Your task to perform on an android device: Open the stopwatch Image 0: 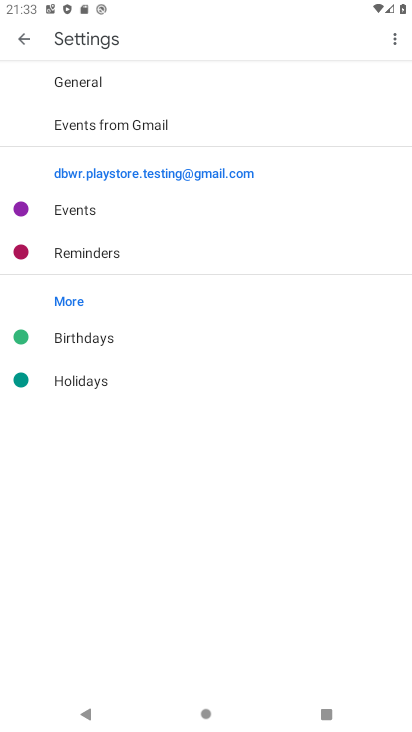
Step 0: press home button
Your task to perform on an android device: Open the stopwatch Image 1: 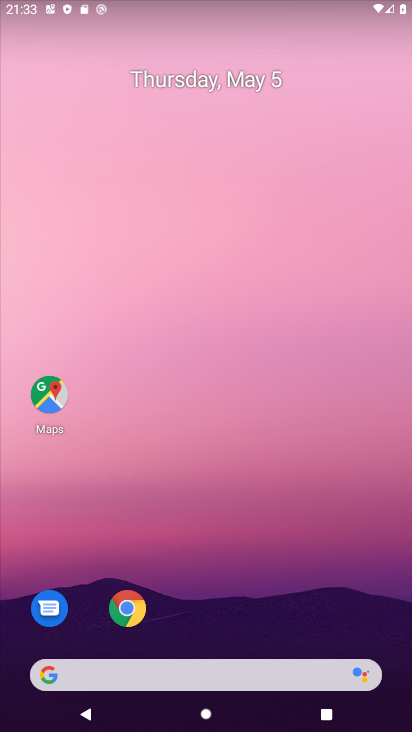
Step 1: drag from (308, 646) to (256, 7)
Your task to perform on an android device: Open the stopwatch Image 2: 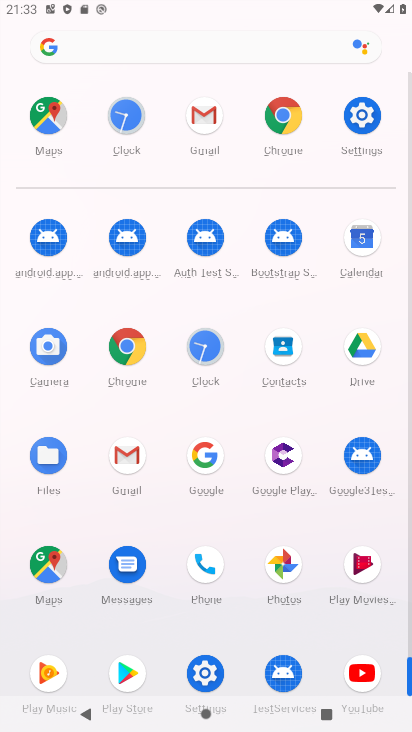
Step 2: click (215, 345)
Your task to perform on an android device: Open the stopwatch Image 3: 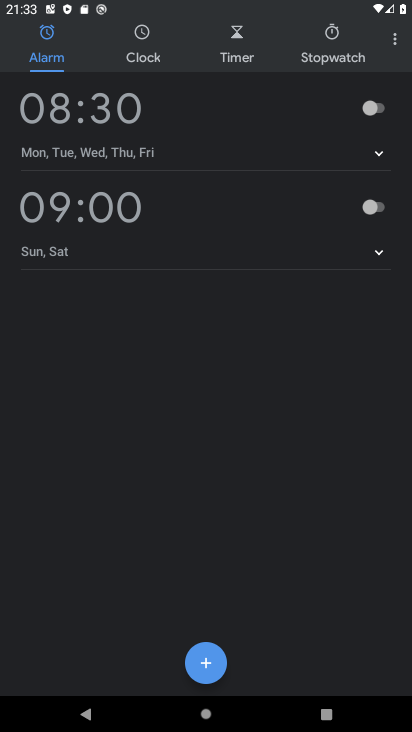
Step 3: click (326, 28)
Your task to perform on an android device: Open the stopwatch Image 4: 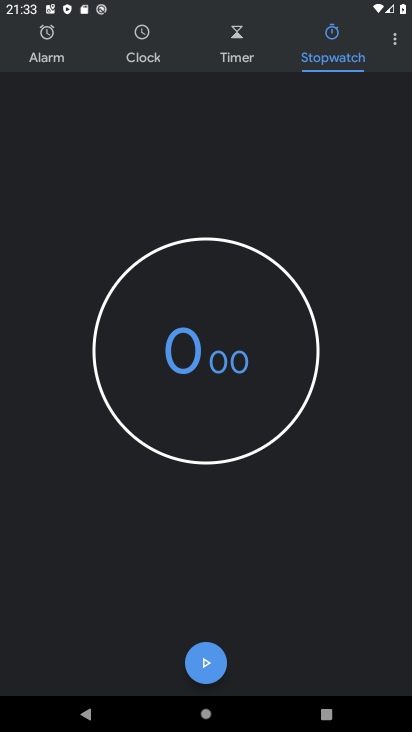
Step 4: click (201, 655)
Your task to perform on an android device: Open the stopwatch Image 5: 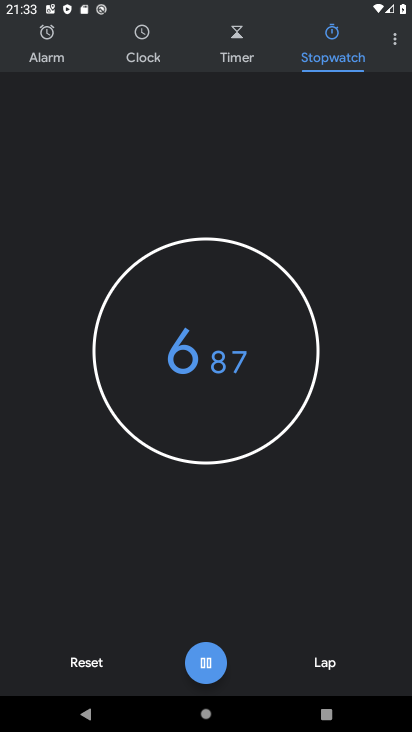
Step 5: task complete